Your task to perform on an android device: Toggle the flashlight Image 0: 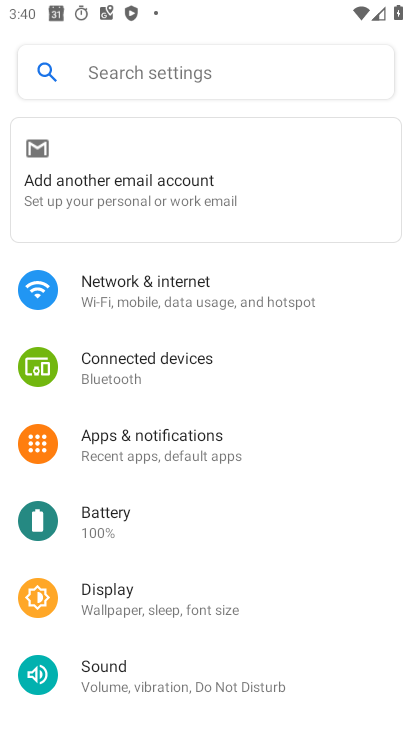
Step 0: click (157, 609)
Your task to perform on an android device: Toggle the flashlight Image 1: 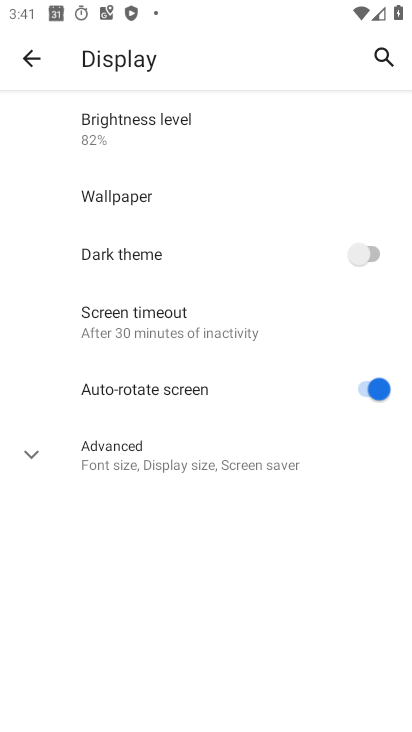
Step 1: task complete